Your task to perform on an android device: Open Google Image 0: 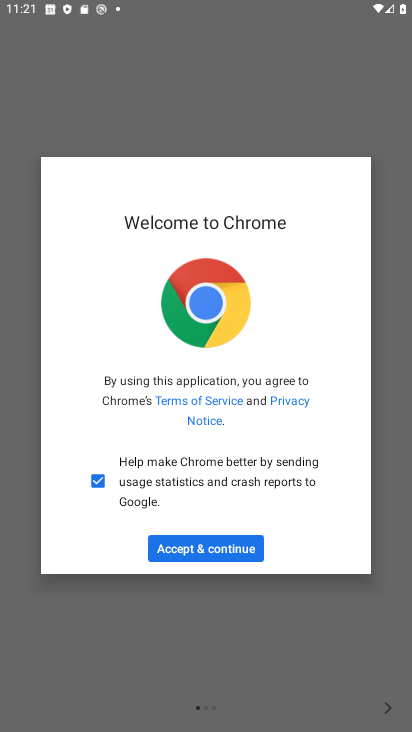
Step 0: press home button
Your task to perform on an android device: Open Google Image 1: 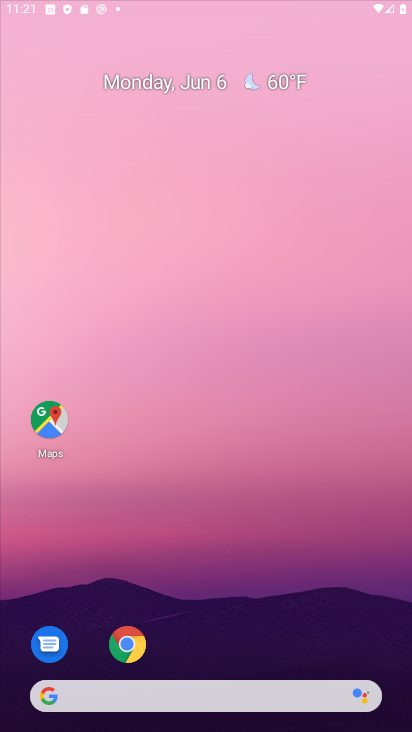
Step 1: drag from (136, 729) to (115, 117)
Your task to perform on an android device: Open Google Image 2: 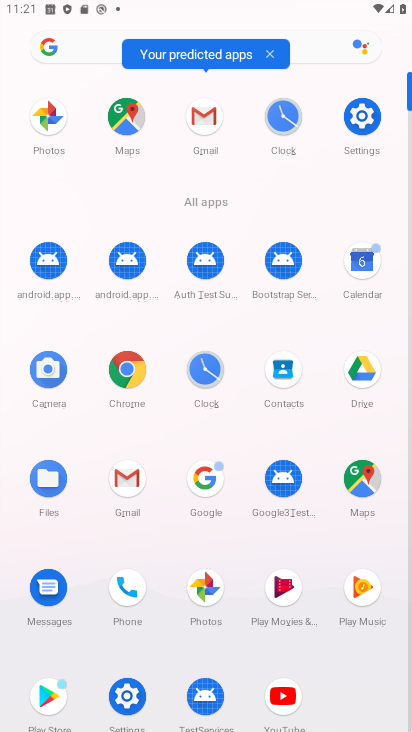
Step 2: click (194, 488)
Your task to perform on an android device: Open Google Image 3: 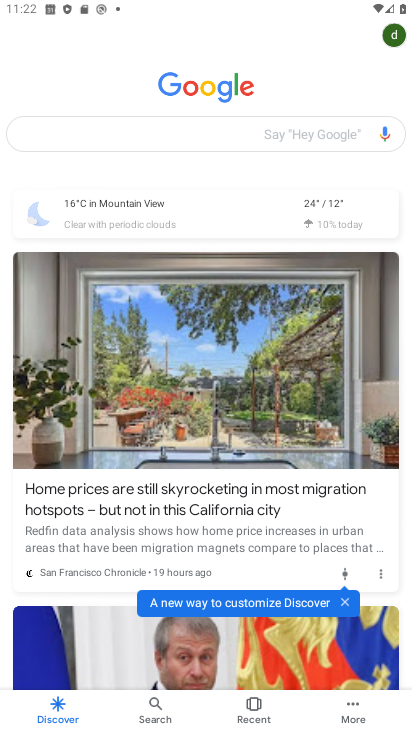
Step 3: task complete